Your task to perform on an android device: all mails in gmail Image 0: 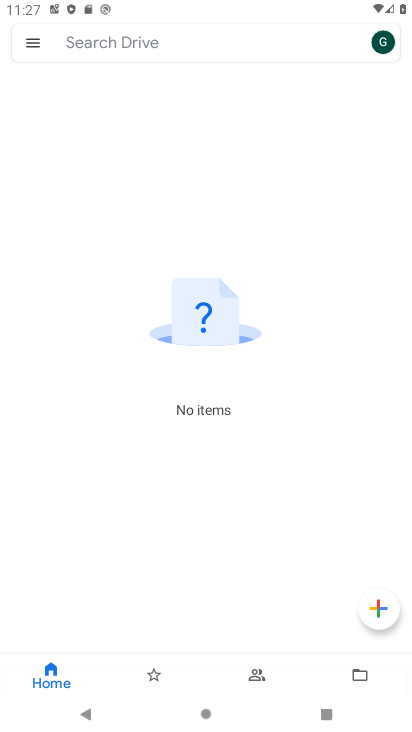
Step 0: press home button
Your task to perform on an android device: all mails in gmail Image 1: 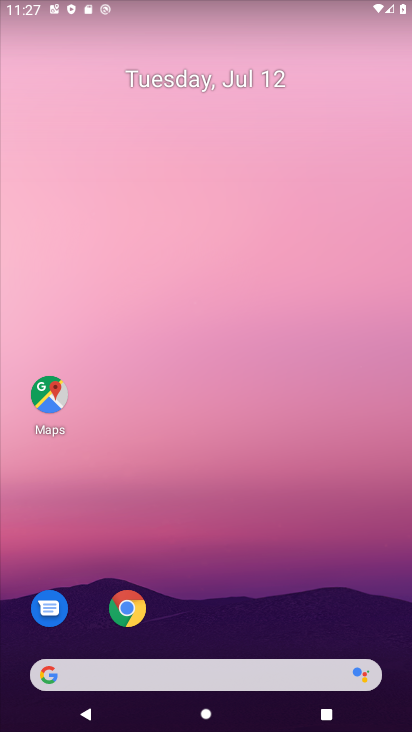
Step 1: drag from (221, 720) to (232, 94)
Your task to perform on an android device: all mails in gmail Image 2: 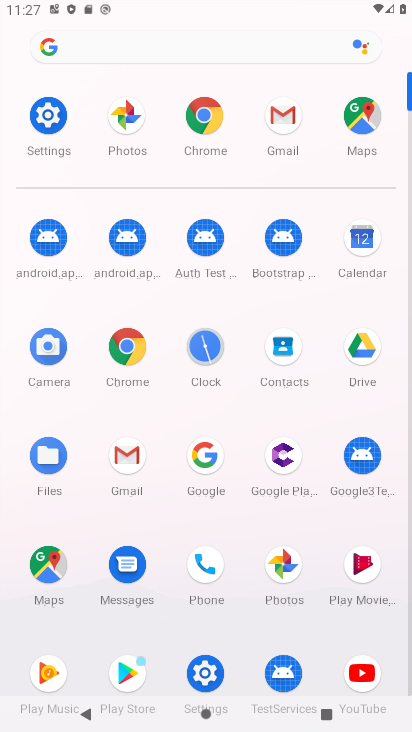
Step 2: click (123, 459)
Your task to perform on an android device: all mails in gmail Image 3: 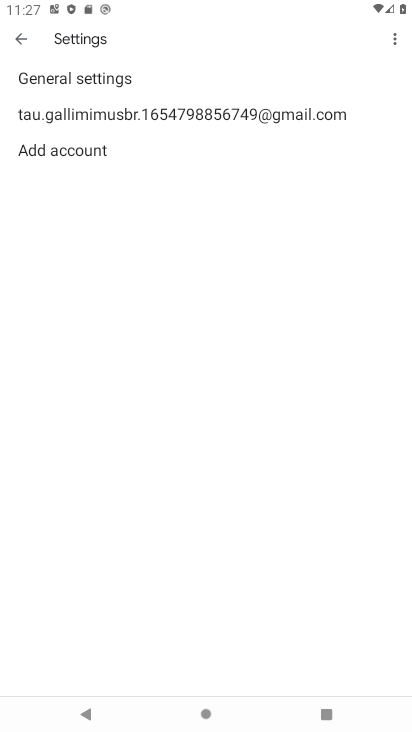
Step 3: click (22, 37)
Your task to perform on an android device: all mails in gmail Image 4: 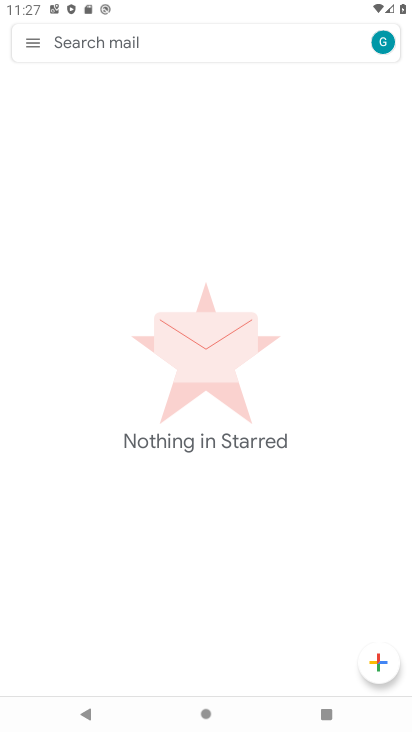
Step 4: click (34, 44)
Your task to perform on an android device: all mails in gmail Image 5: 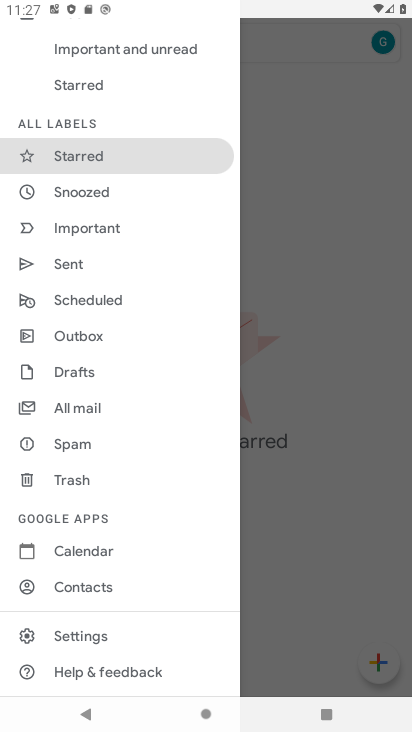
Step 5: click (64, 404)
Your task to perform on an android device: all mails in gmail Image 6: 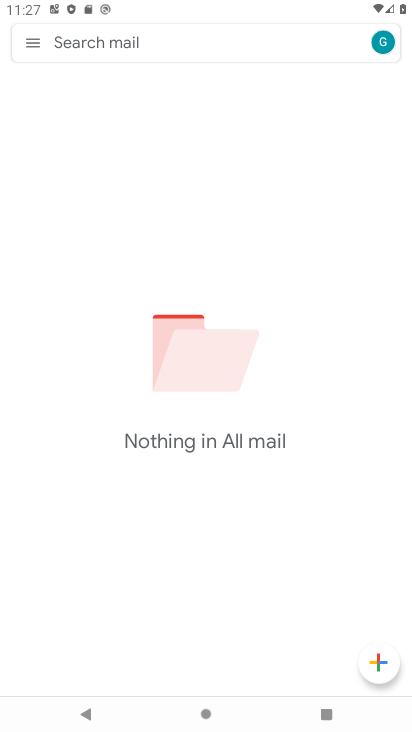
Step 6: task complete